Your task to perform on an android device: Set the phone to "Do not disturb". Image 0: 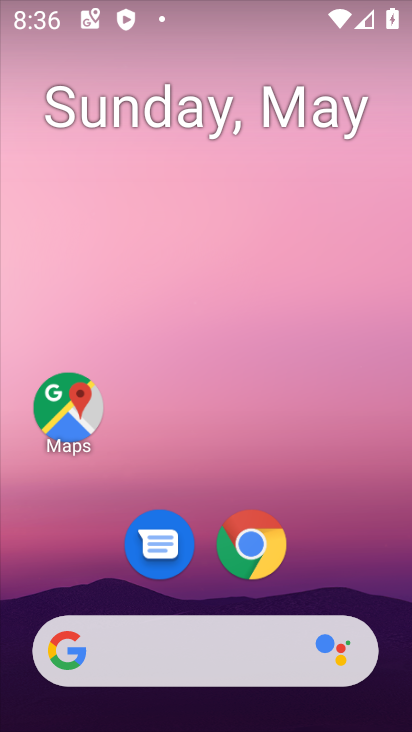
Step 0: drag from (350, 497) to (268, 5)
Your task to perform on an android device: Set the phone to "Do not disturb". Image 1: 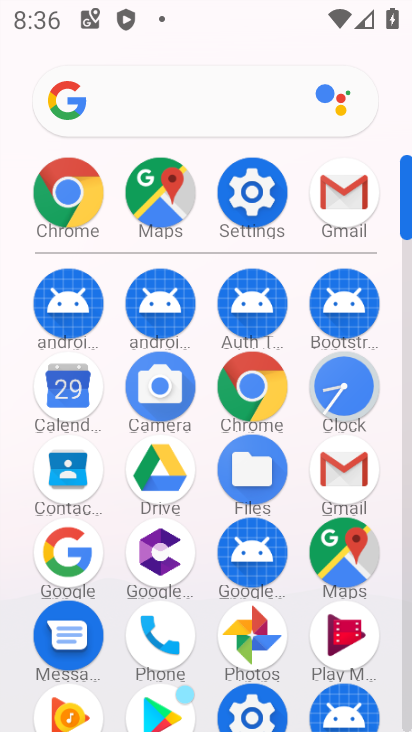
Step 1: drag from (1, 470) to (18, 185)
Your task to perform on an android device: Set the phone to "Do not disturb". Image 2: 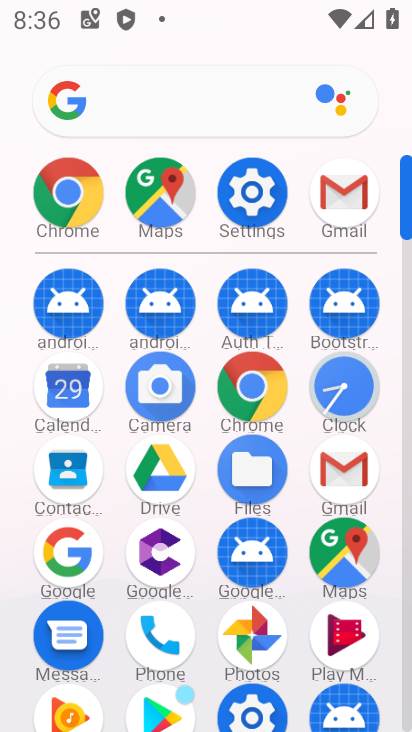
Step 2: click (249, 708)
Your task to perform on an android device: Set the phone to "Do not disturb". Image 3: 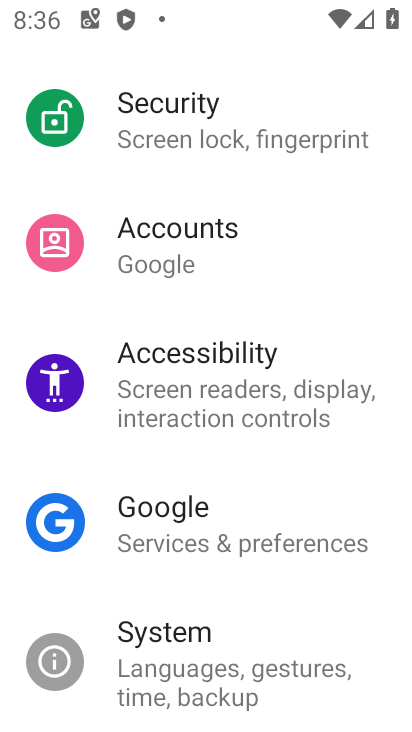
Step 3: drag from (330, 638) to (313, 142)
Your task to perform on an android device: Set the phone to "Do not disturb". Image 4: 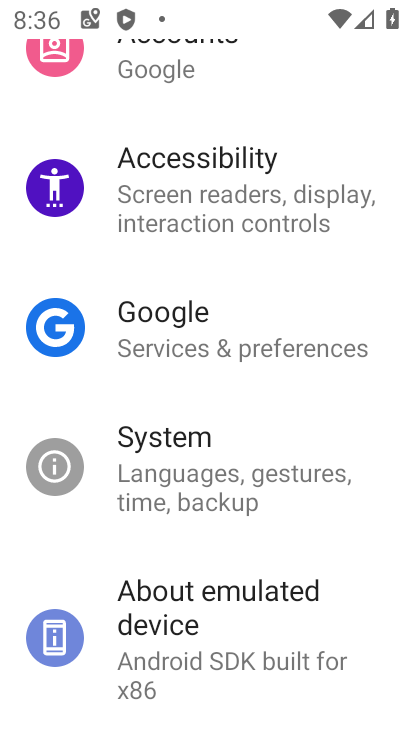
Step 4: drag from (253, 567) to (292, 143)
Your task to perform on an android device: Set the phone to "Do not disturb". Image 5: 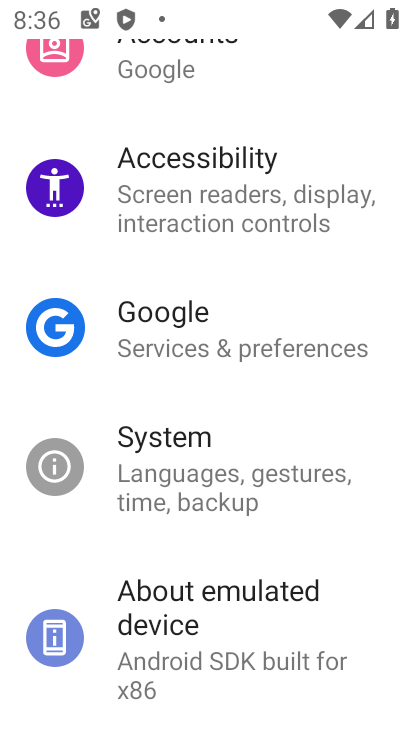
Step 5: drag from (298, 218) to (256, 610)
Your task to perform on an android device: Set the phone to "Do not disturb". Image 6: 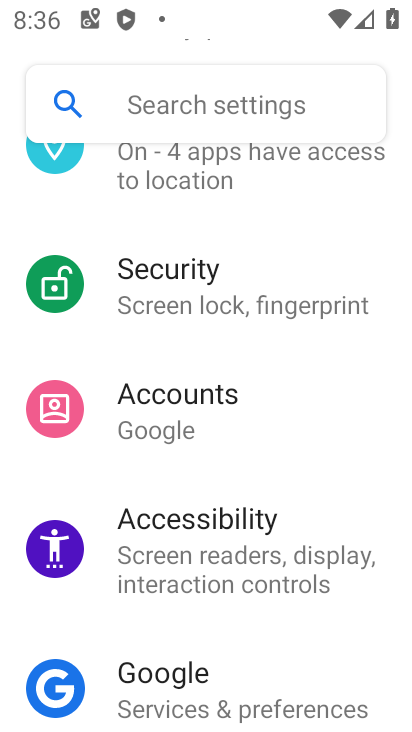
Step 6: drag from (225, 305) to (230, 651)
Your task to perform on an android device: Set the phone to "Do not disturb". Image 7: 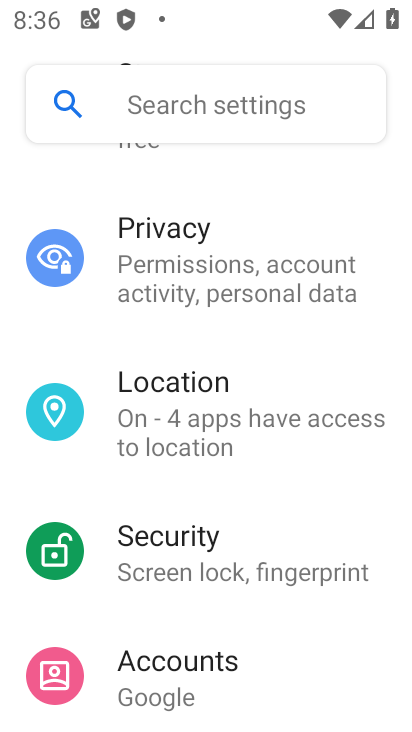
Step 7: drag from (295, 242) to (297, 664)
Your task to perform on an android device: Set the phone to "Do not disturb". Image 8: 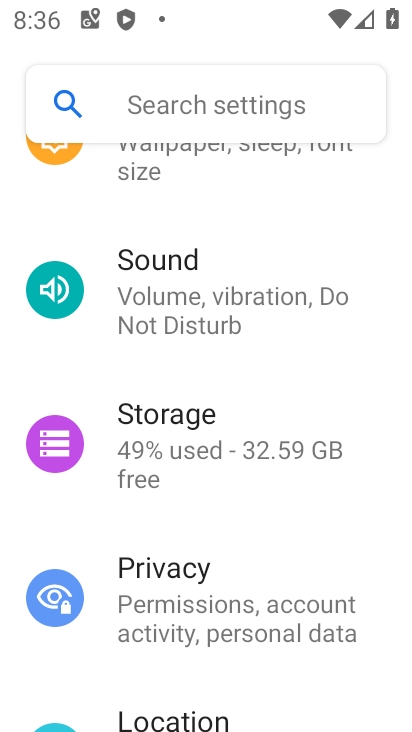
Step 8: click (272, 300)
Your task to perform on an android device: Set the phone to "Do not disturb". Image 9: 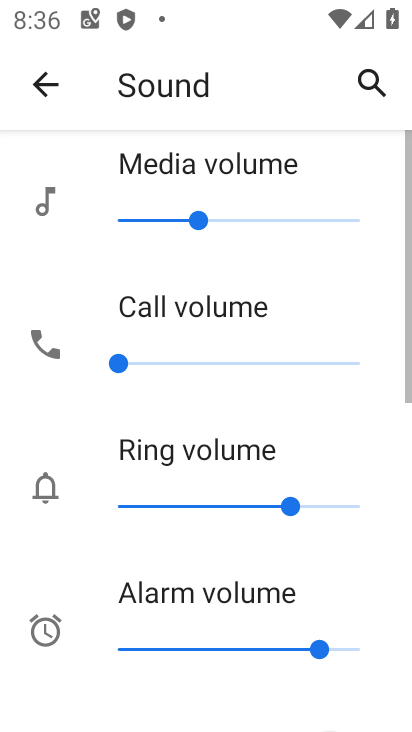
Step 9: drag from (231, 574) to (257, 114)
Your task to perform on an android device: Set the phone to "Do not disturb". Image 10: 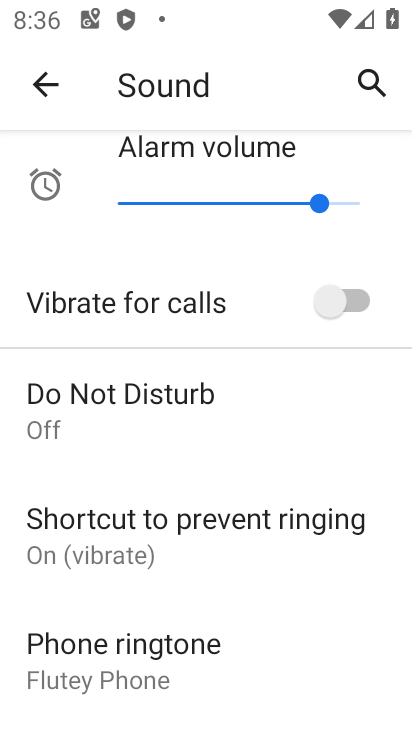
Step 10: click (146, 404)
Your task to perform on an android device: Set the phone to "Do not disturb". Image 11: 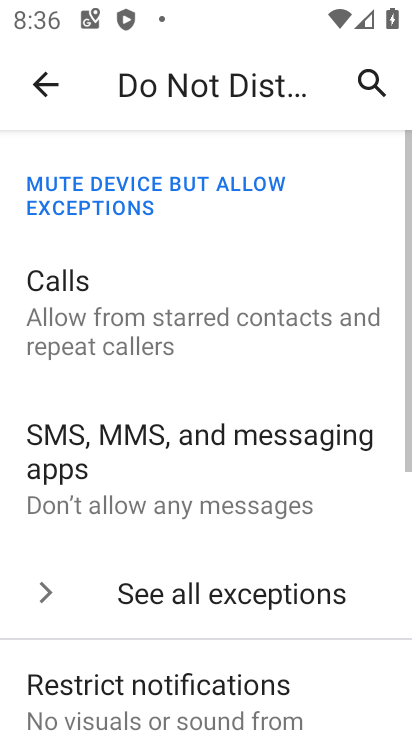
Step 11: drag from (290, 622) to (282, 136)
Your task to perform on an android device: Set the phone to "Do not disturb". Image 12: 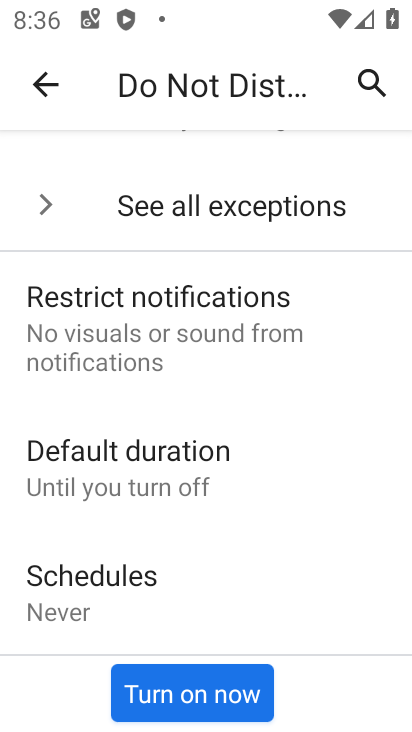
Step 12: click (184, 709)
Your task to perform on an android device: Set the phone to "Do not disturb". Image 13: 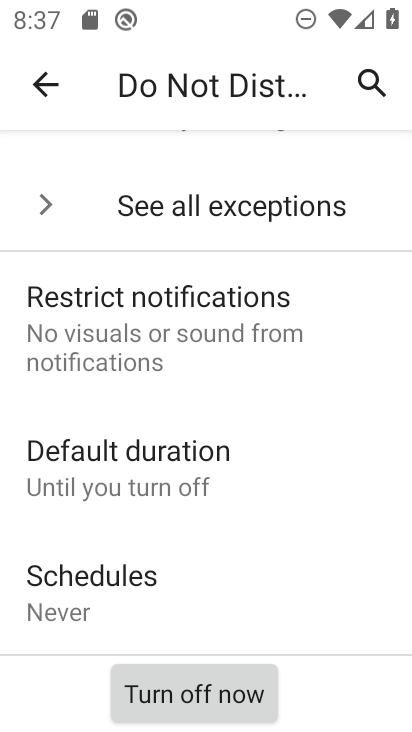
Step 13: task complete